Your task to perform on an android device: Open settings Image 0: 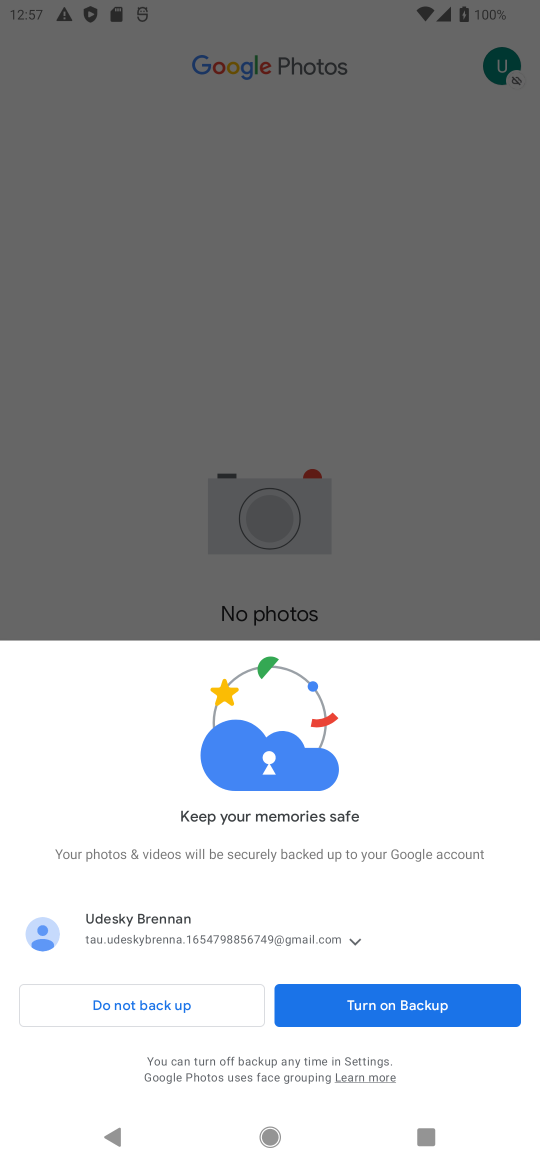
Step 0: press home button
Your task to perform on an android device: Open settings Image 1: 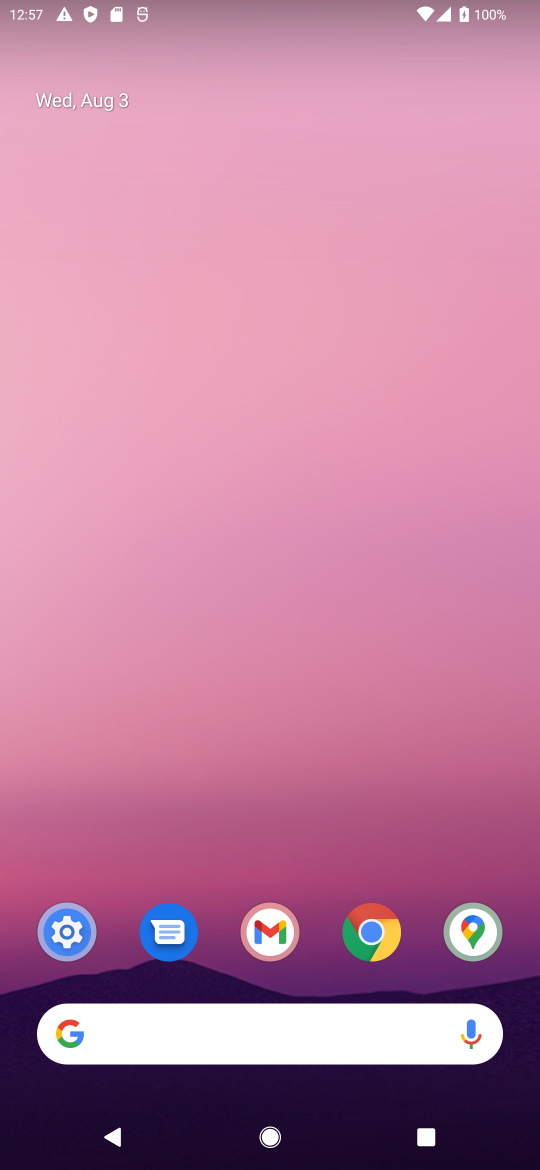
Step 1: click (84, 934)
Your task to perform on an android device: Open settings Image 2: 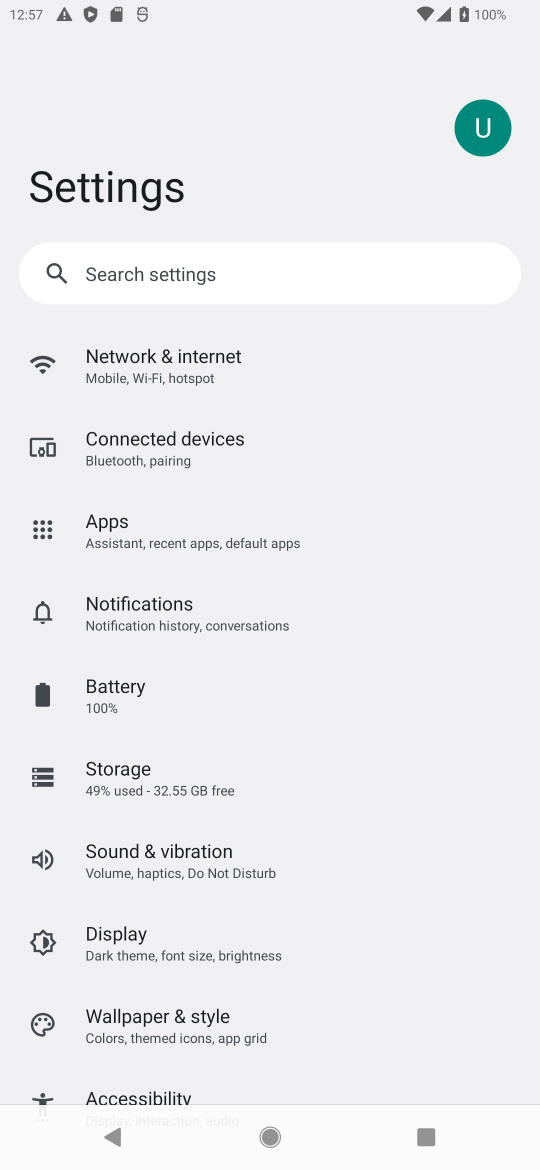
Step 2: task complete